Your task to perform on an android device: change the upload size in google photos Image 0: 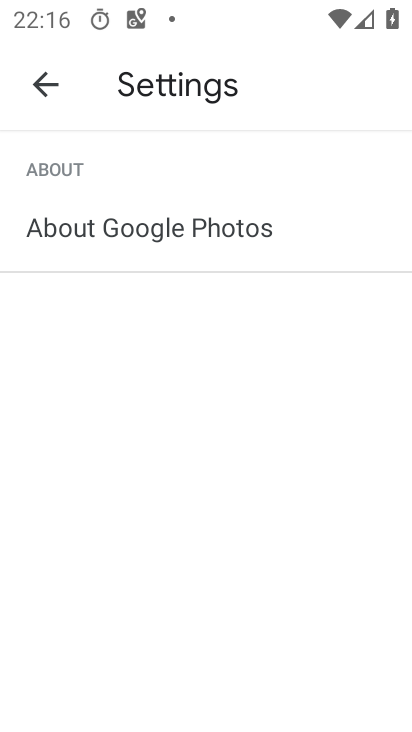
Step 0: press home button
Your task to perform on an android device: change the upload size in google photos Image 1: 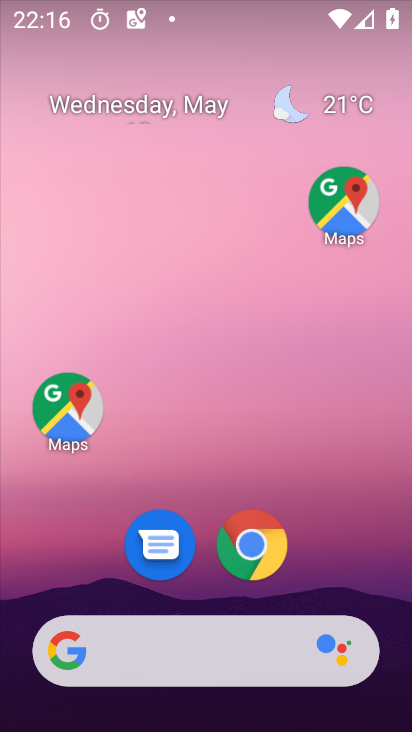
Step 1: drag from (338, 604) to (329, 41)
Your task to perform on an android device: change the upload size in google photos Image 2: 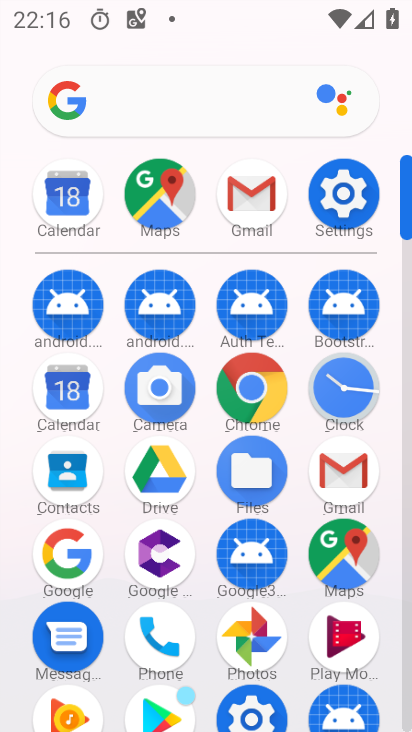
Step 2: click (244, 646)
Your task to perform on an android device: change the upload size in google photos Image 3: 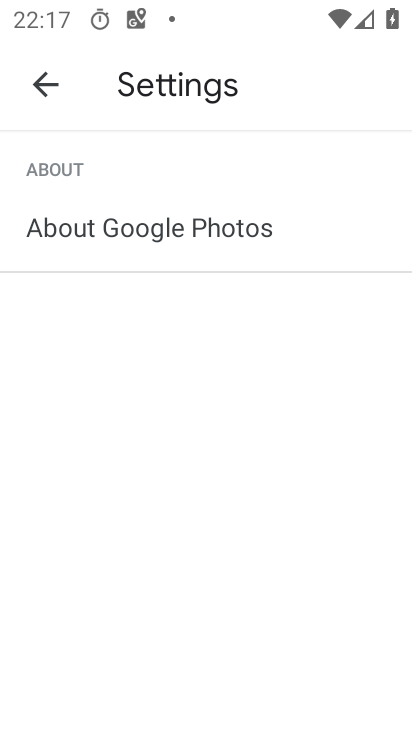
Step 3: click (40, 90)
Your task to perform on an android device: change the upload size in google photos Image 4: 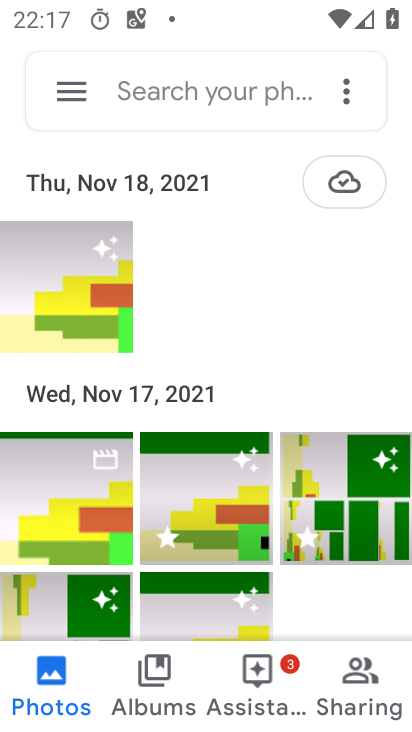
Step 4: click (66, 86)
Your task to perform on an android device: change the upload size in google photos Image 5: 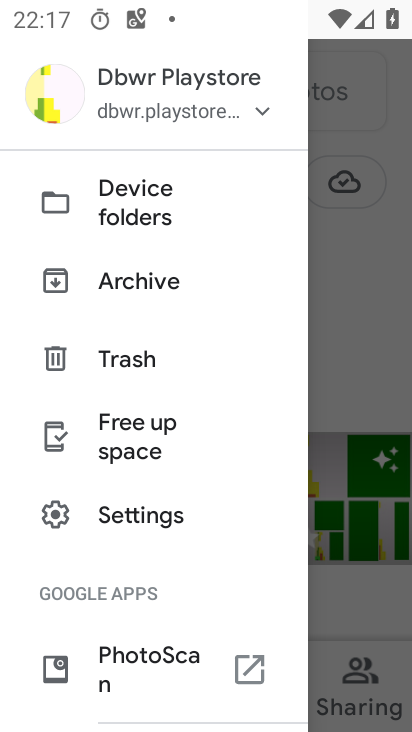
Step 5: click (156, 515)
Your task to perform on an android device: change the upload size in google photos Image 6: 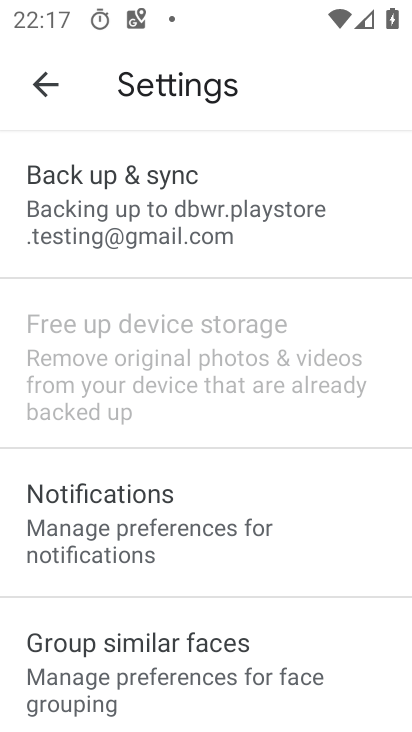
Step 6: click (171, 203)
Your task to perform on an android device: change the upload size in google photos Image 7: 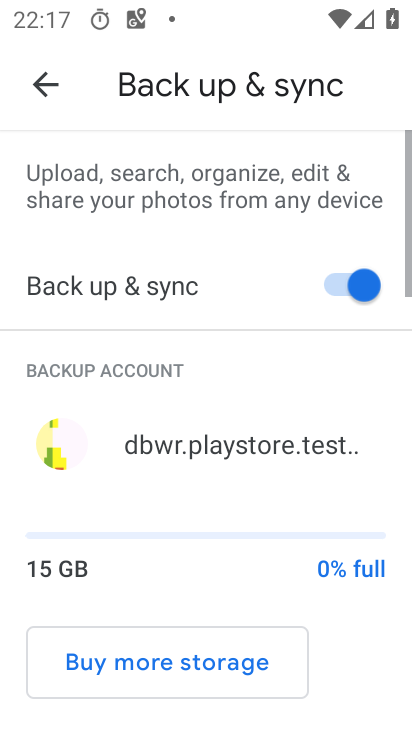
Step 7: drag from (197, 560) to (219, 215)
Your task to perform on an android device: change the upload size in google photos Image 8: 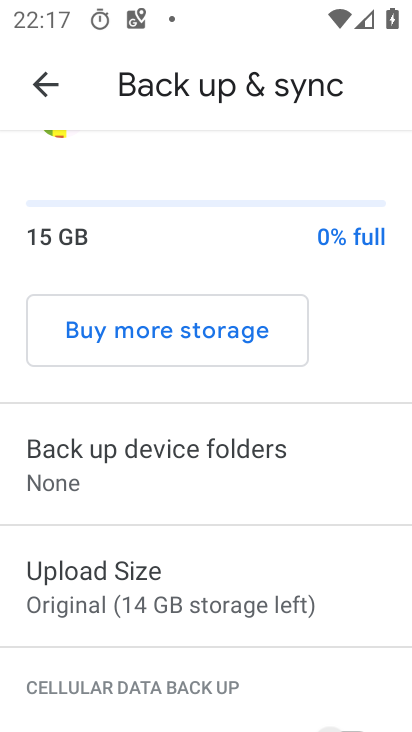
Step 8: drag from (207, 619) to (199, 406)
Your task to perform on an android device: change the upload size in google photos Image 9: 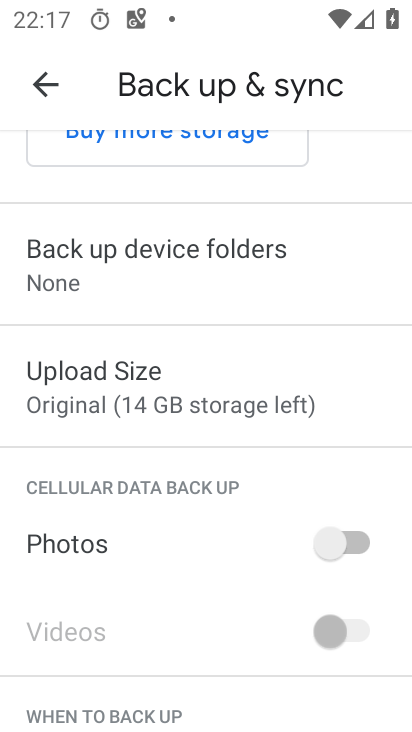
Step 9: click (142, 391)
Your task to perform on an android device: change the upload size in google photos Image 10: 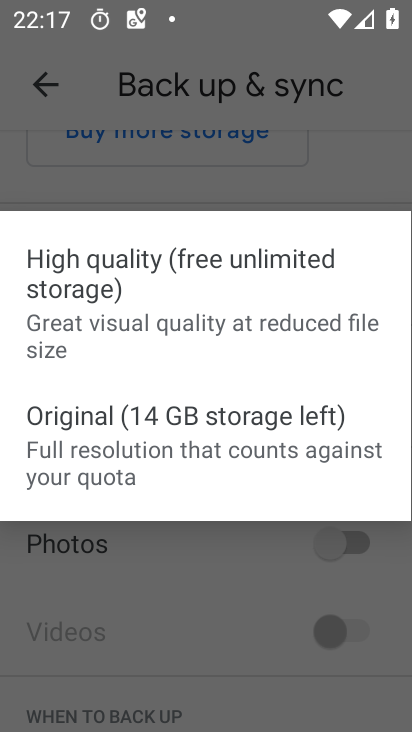
Step 10: click (177, 304)
Your task to perform on an android device: change the upload size in google photos Image 11: 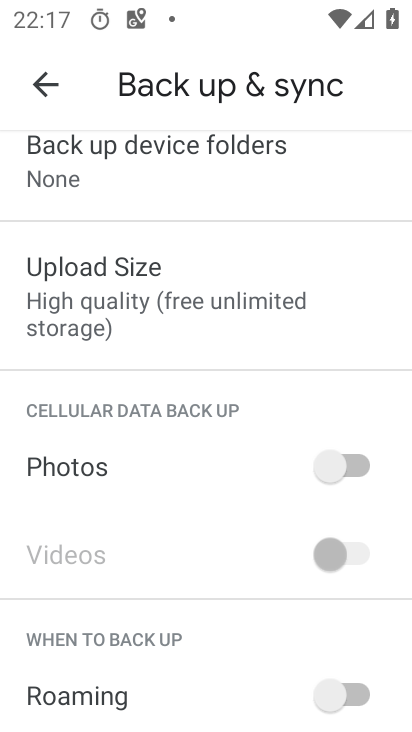
Step 11: task complete